Your task to perform on an android device: Turn on the flashlight Image 0: 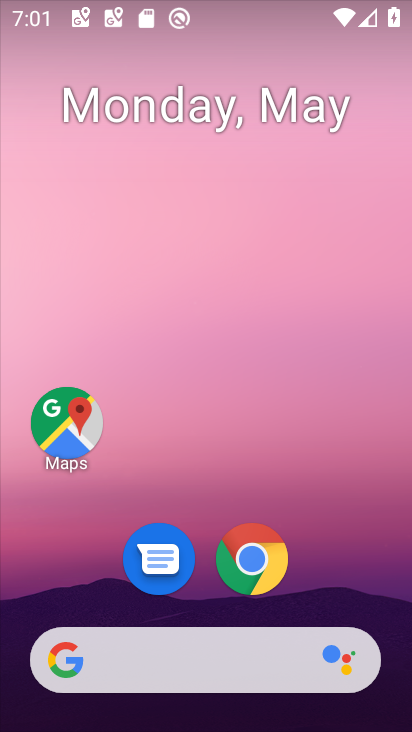
Step 0: drag from (389, 645) to (346, 0)
Your task to perform on an android device: Turn on the flashlight Image 1: 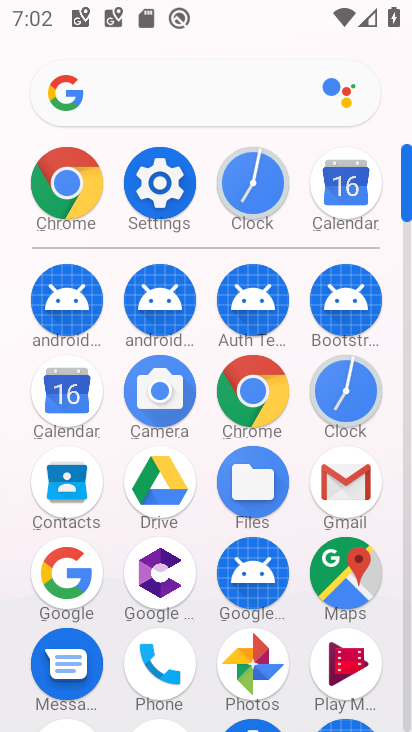
Step 1: click (155, 184)
Your task to perform on an android device: Turn on the flashlight Image 2: 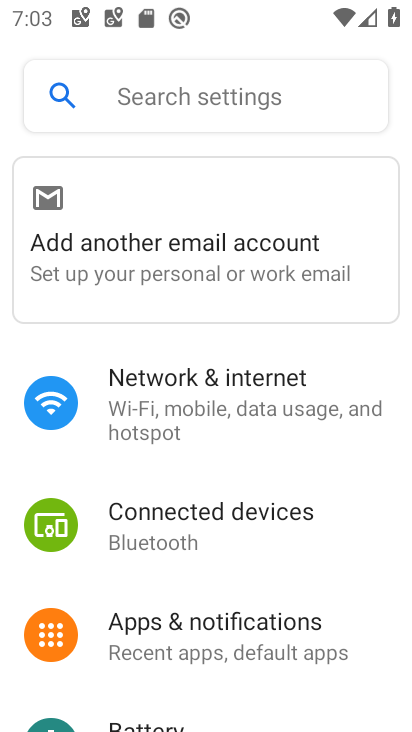
Step 2: task complete